Your task to perform on an android device: Go to Wikipedia Image 0: 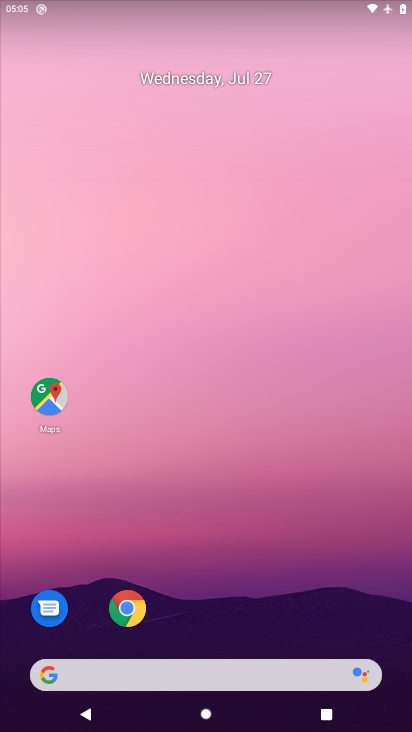
Step 0: click (36, 686)
Your task to perform on an android device: Go to Wikipedia Image 1: 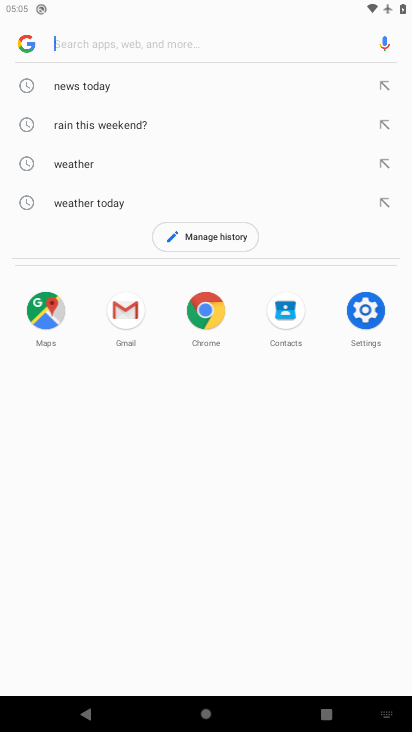
Step 1: press enter
Your task to perform on an android device: Go to Wikipedia Image 2: 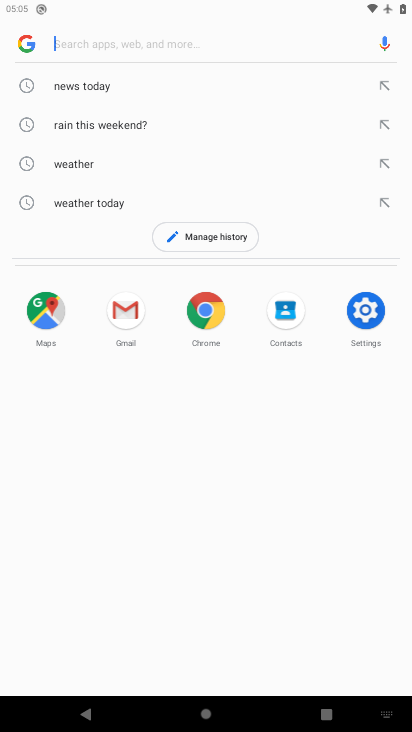
Step 2: type "Wikipedia"
Your task to perform on an android device: Go to Wikipedia Image 3: 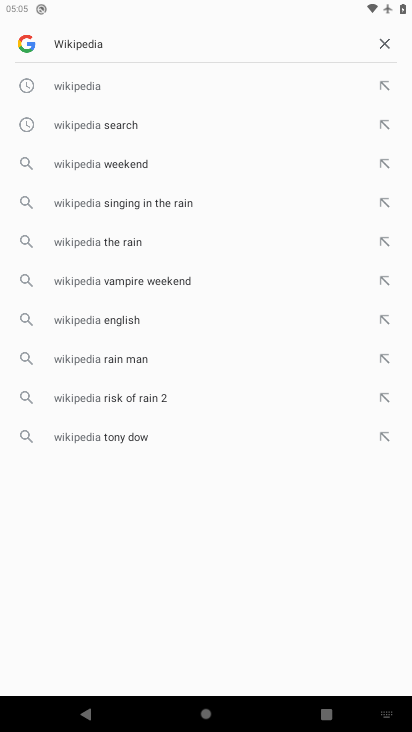
Step 3: click (70, 81)
Your task to perform on an android device: Go to Wikipedia Image 4: 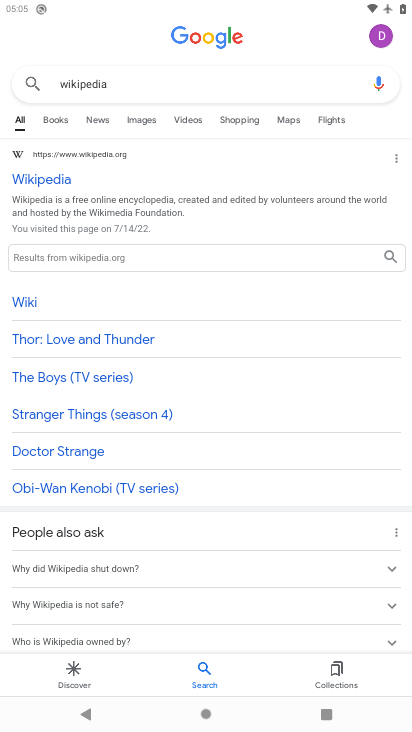
Step 4: click (21, 186)
Your task to perform on an android device: Go to Wikipedia Image 5: 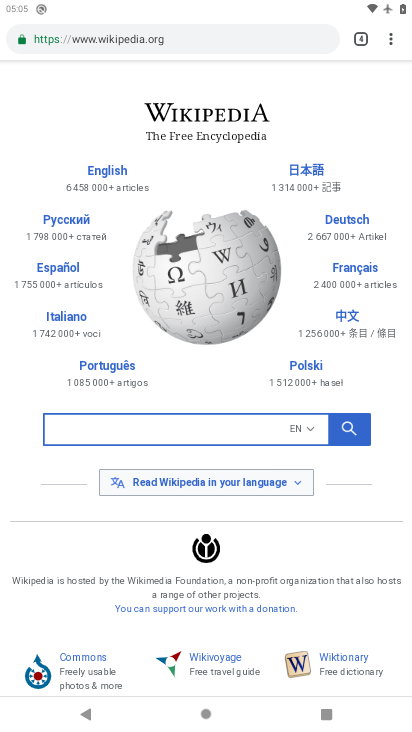
Step 5: task complete